Your task to perform on an android device: turn notification dots on Image 0: 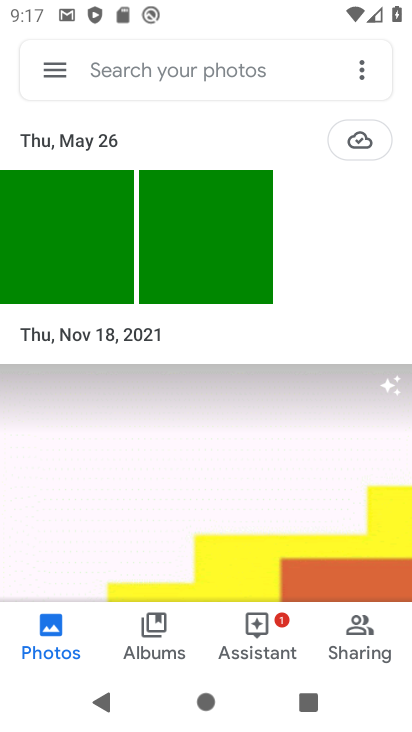
Step 0: press home button
Your task to perform on an android device: turn notification dots on Image 1: 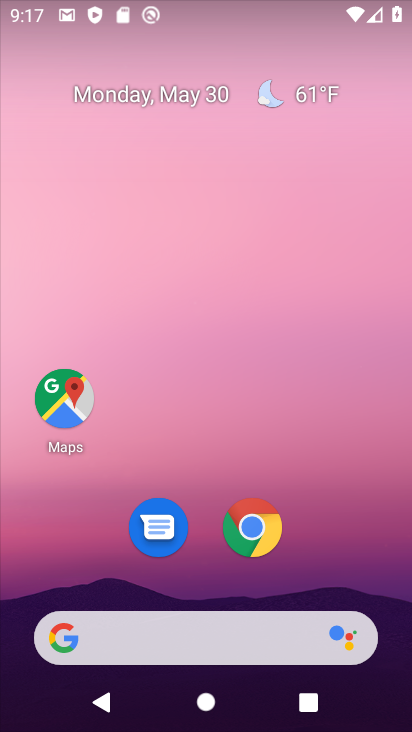
Step 1: drag from (207, 579) to (258, 21)
Your task to perform on an android device: turn notification dots on Image 2: 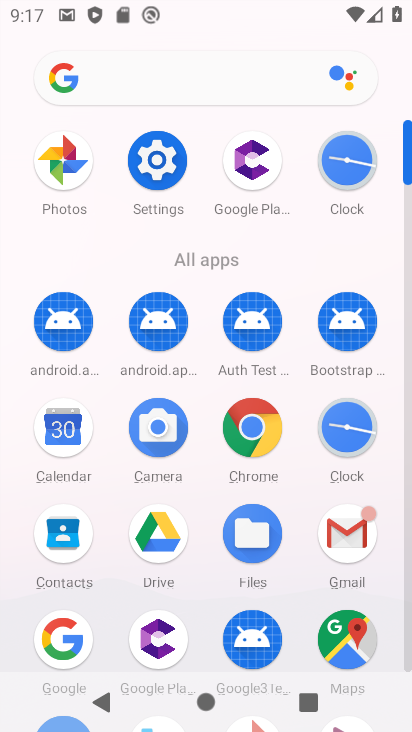
Step 2: click (158, 154)
Your task to perform on an android device: turn notification dots on Image 3: 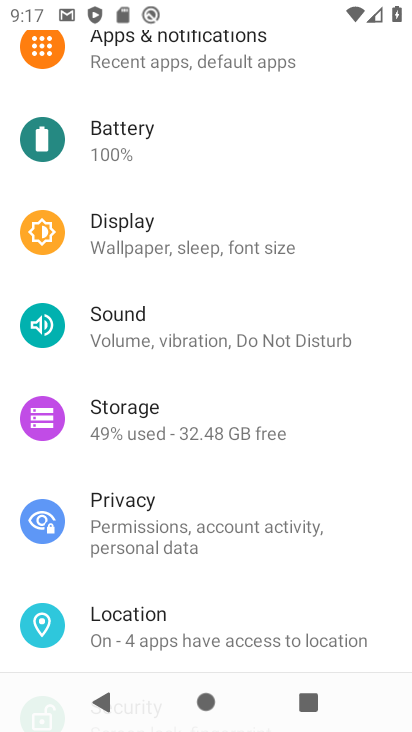
Step 3: click (174, 48)
Your task to perform on an android device: turn notification dots on Image 4: 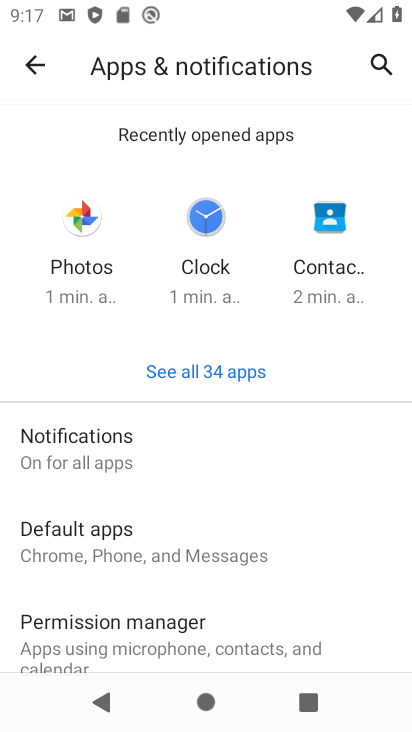
Step 4: click (77, 433)
Your task to perform on an android device: turn notification dots on Image 5: 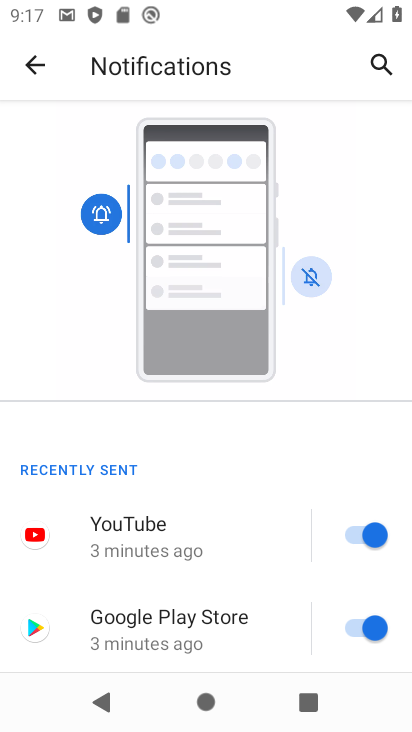
Step 5: drag from (112, 597) to (123, 168)
Your task to perform on an android device: turn notification dots on Image 6: 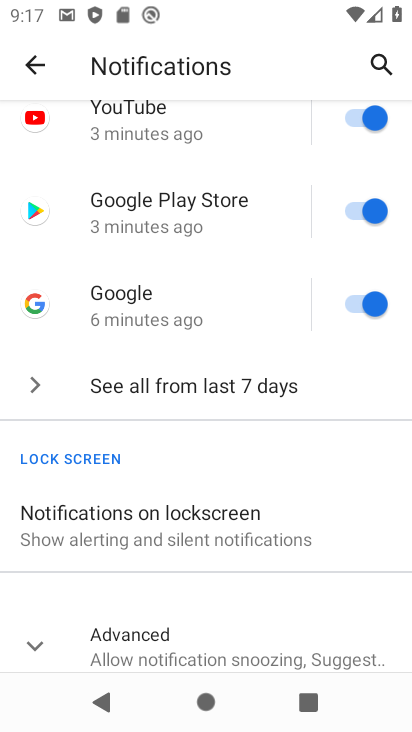
Step 6: click (171, 646)
Your task to perform on an android device: turn notification dots on Image 7: 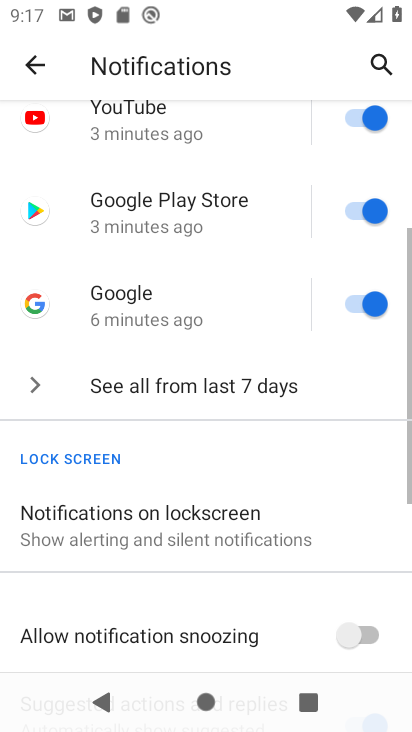
Step 7: task complete